Your task to perform on an android device: What's the latest news in planetary science? Image 0: 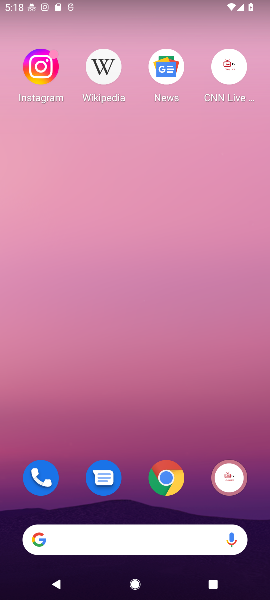
Step 0: drag from (79, 506) to (116, 154)
Your task to perform on an android device: What's the latest news in planetary science? Image 1: 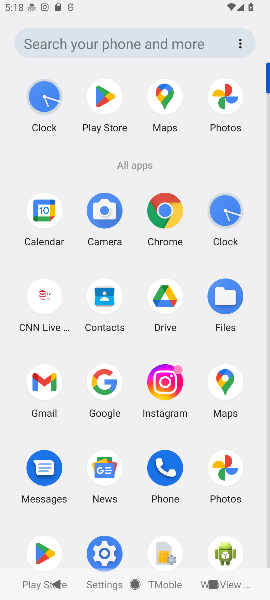
Step 1: click (116, 94)
Your task to perform on an android device: What's the latest news in planetary science? Image 2: 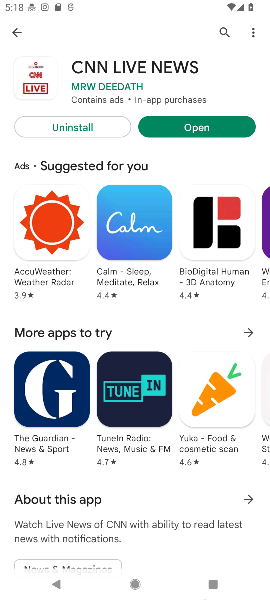
Step 2: click (213, 38)
Your task to perform on an android device: What's the latest news in planetary science? Image 3: 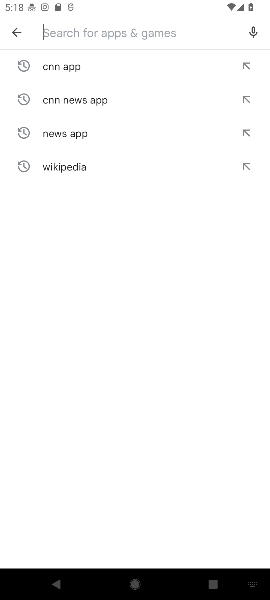
Step 3: press home button
Your task to perform on an android device: What's the latest news in planetary science? Image 4: 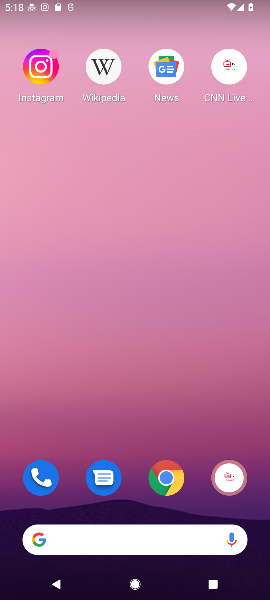
Step 4: click (113, 530)
Your task to perform on an android device: What's the latest news in planetary science? Image 5: 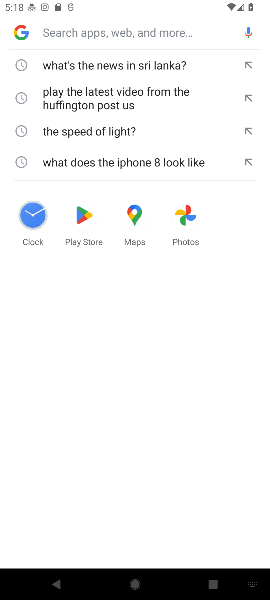
Step 5: type "planetary science?"
Your task to perform on an android device: What's the latest news in planetary science? Image 6: 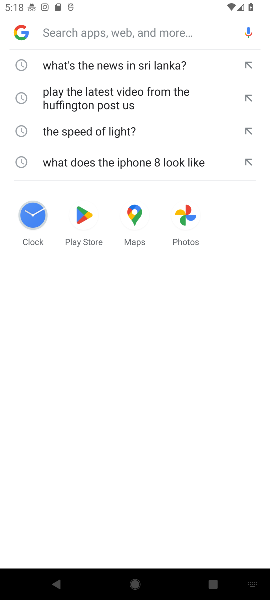
Step 6: drag from (263, 61) to (66, 556)
Your task to perform on an android device: What's the latest news in planetary science? Image 7: 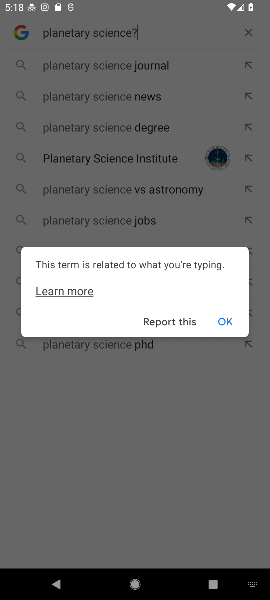
Step 7: click (224, 326)
Your task to perform on an android device: What's the latest news in planetary science? Image 8: 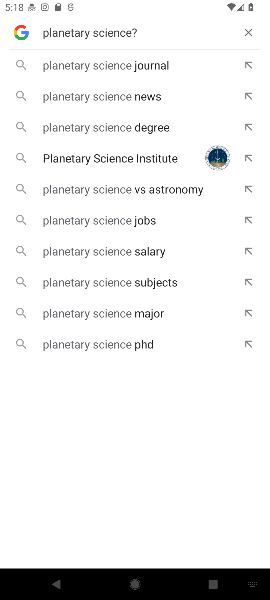
Step 8: click (252, 27)
Your task to perform on an android device: What's the latest news in planetary science? Image 9: 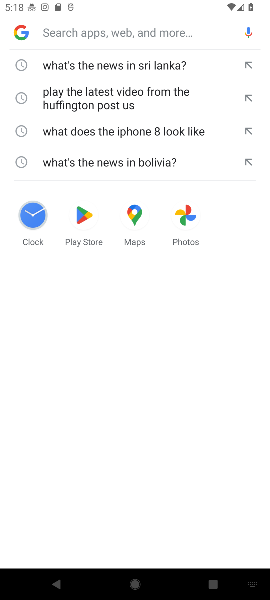
Step 9: type "atest news in planetary science?"
Your task to perform on an android device: What's the latest news in planetary science? Image 10: 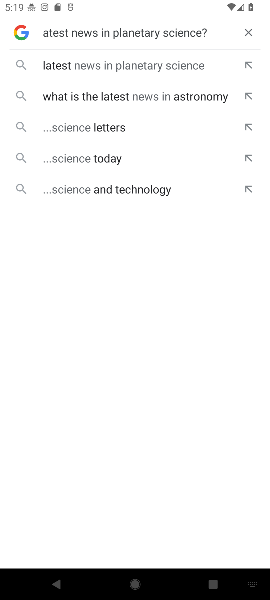
Step 10: click (55, 66)
Your task to perform on an android device: What's the latest news in planetary science? Image 11: 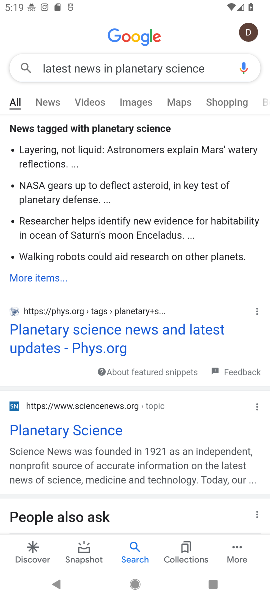
Step 11: click (55, 102)
Your task to perform on an android device: What's the latest news in planetary science? Image 12: 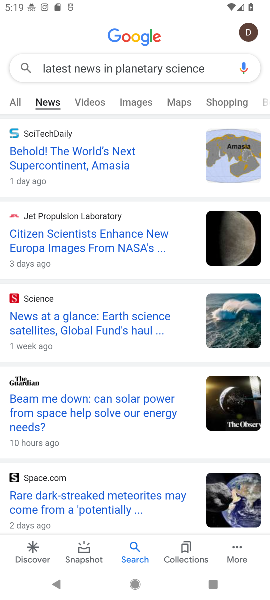
Step 12: task complete